Your task to perform on an android device: turn off location history Image 0: 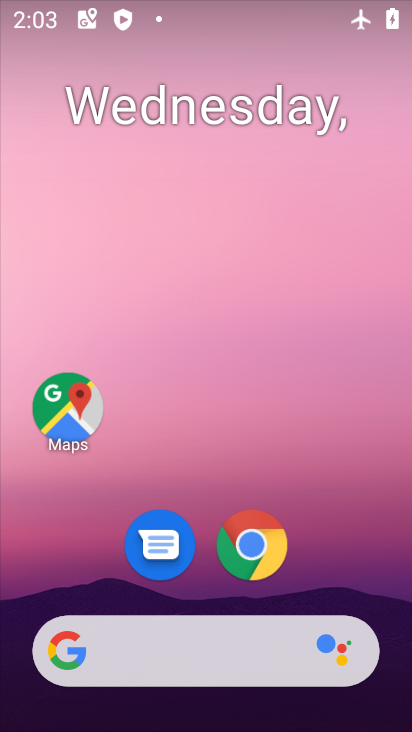
Step 0: click (248, 536)
Your task to perform on an android device: turn off location history Image 1: 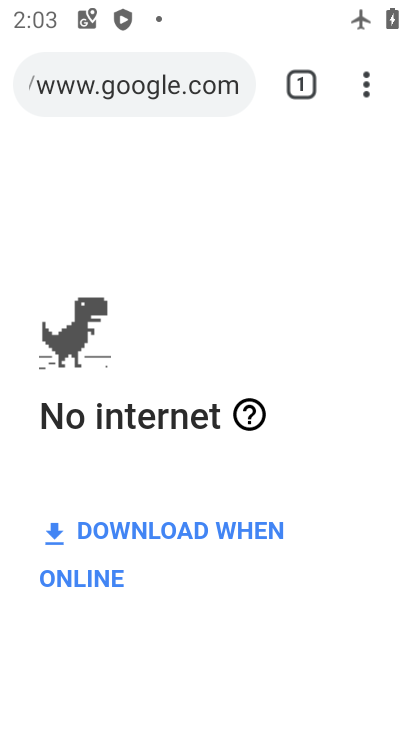
Step 1: press home button
Your task to perform on an android device: turn off location history Image 2: 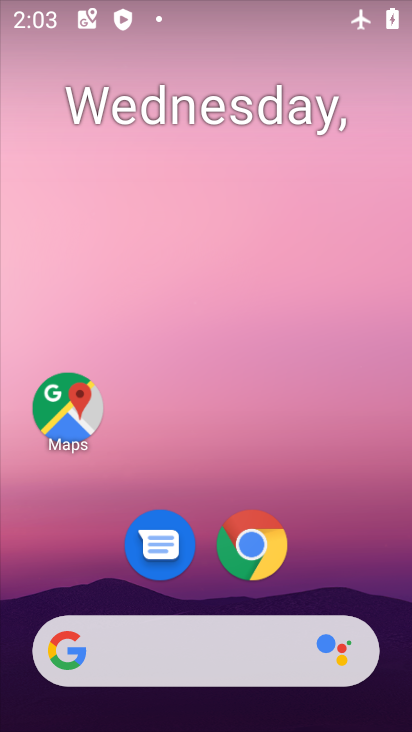
Step 2: drag from (305, 481) to (231, 3)
Your task to perform on an android device: turn off location history Image 3: 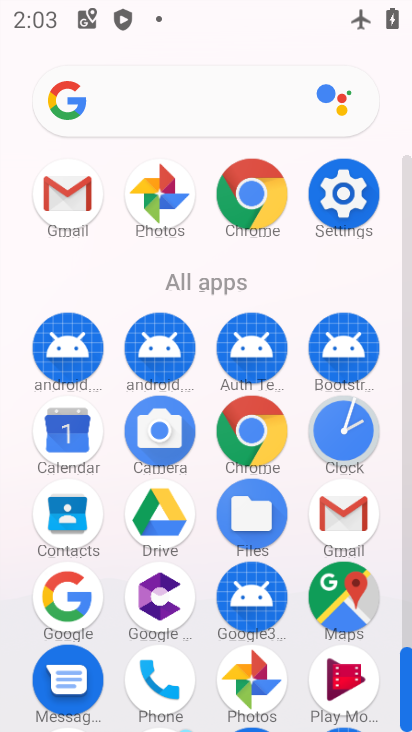
Step 3: click (358, 190)
Your task to perform on an android device: turn off location history Image 4: 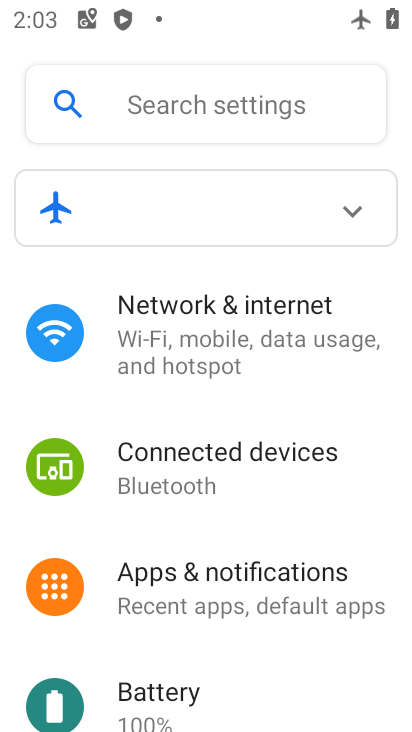
Step 4: drag from (199, 616) to (237, 194)
Your task to perform on an android device: turn off location history Image 5: 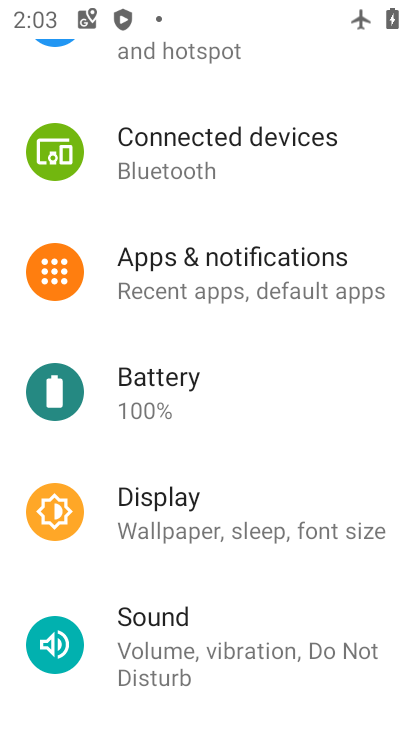
Step 5: drag from (226, 641) to (271, 203)
Your task to perform on an android device: turn off location history Image 6: 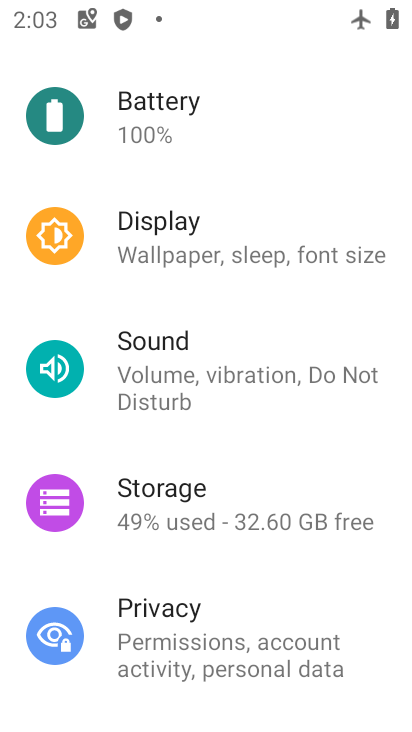
Step 6: drag from (236, 563) to (247, 199)
Your task to perform on an android device: turn off location history Image 7: 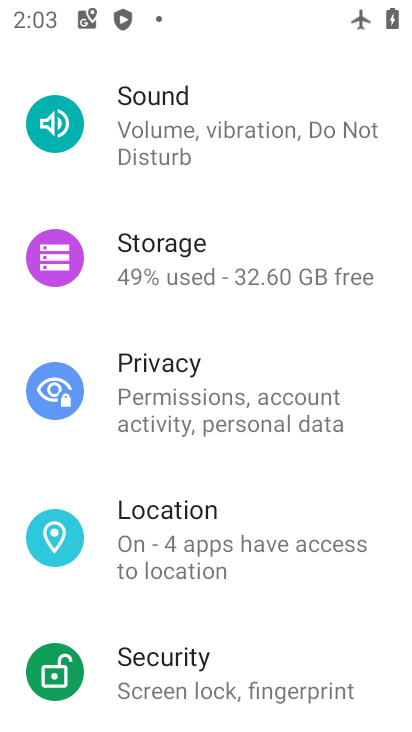
Step 7: click (197, 556)
Your task to perform on an android device: turn off location history Image 8: 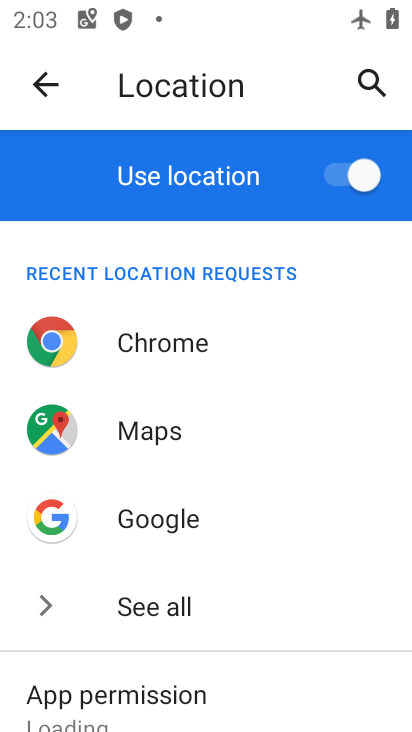
Step 8: drag from (213, 621) to (232, 122)
Your task to perform on an android device: turn off location history Image 9: 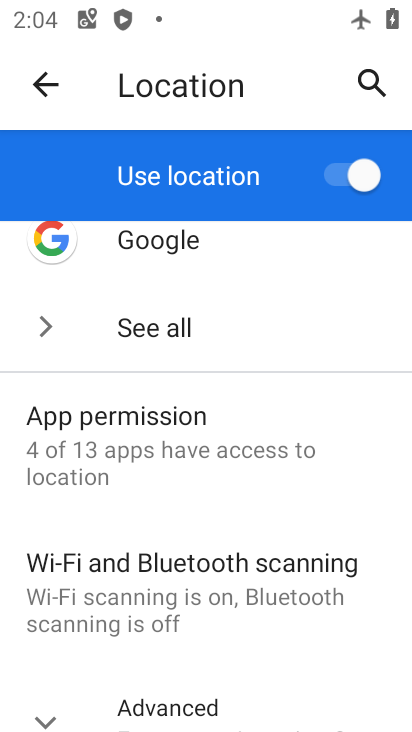
Step 9: click (153, 719)
Your task to perform on an android device: turn off location history Image 10: 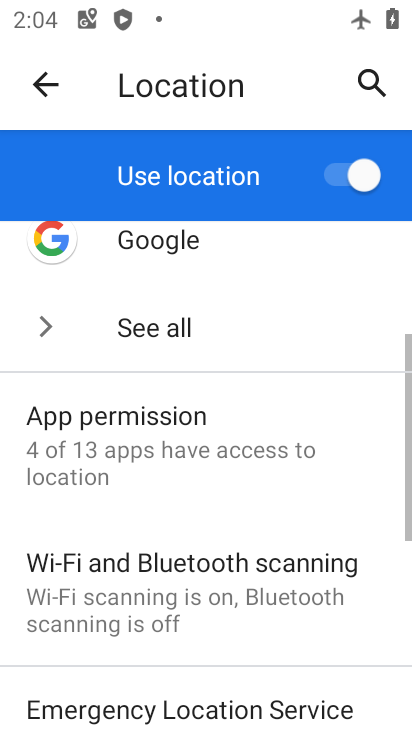
Step 10: drag from (211, 659) to (175, 170)
Your task to perform on an android device: turn off location history Image 11: 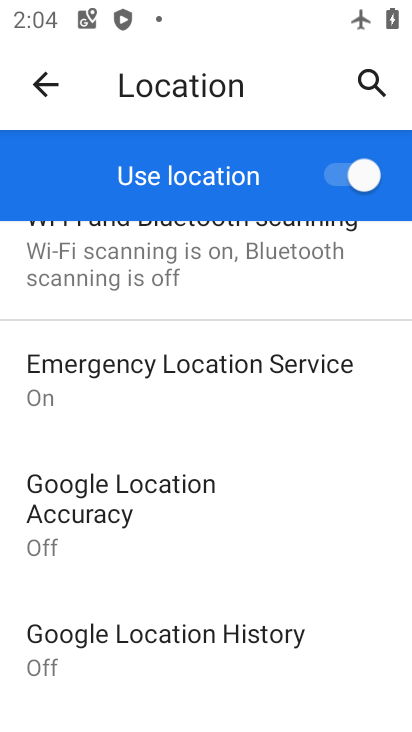
Step 11: click (192, 661)
Your task to perform on an android device: turn off location history Image 12: 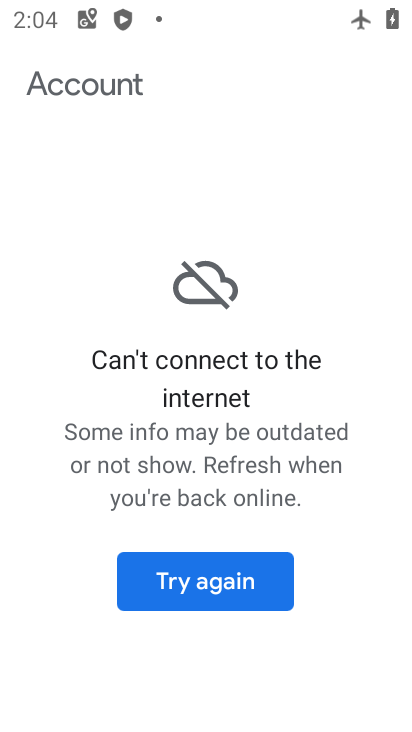
Step 12: task complete